Your task to perform on an android device: create a new album in the google photos Image 0: 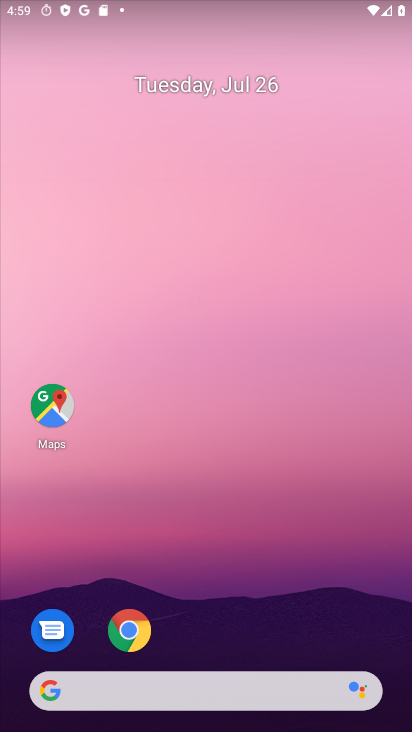
Step 0: drag from (324, 646) to (270, 84)
Your task to perform on an android device: create a new album in the google photos Image 1: 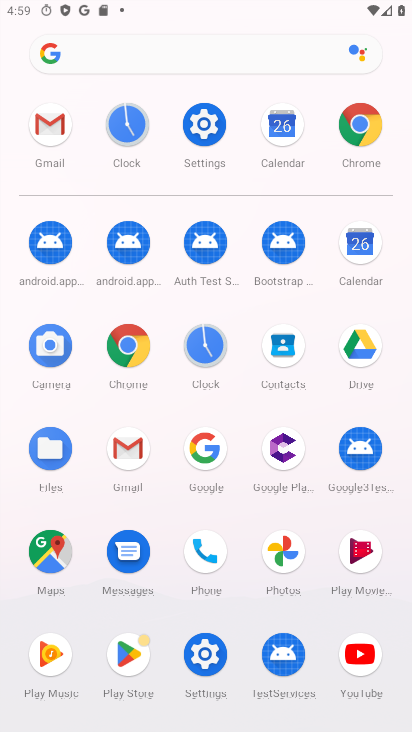
Step 1: click (285, 560)
Your task to perform on an android device: create a new album in the google photos Image 2: 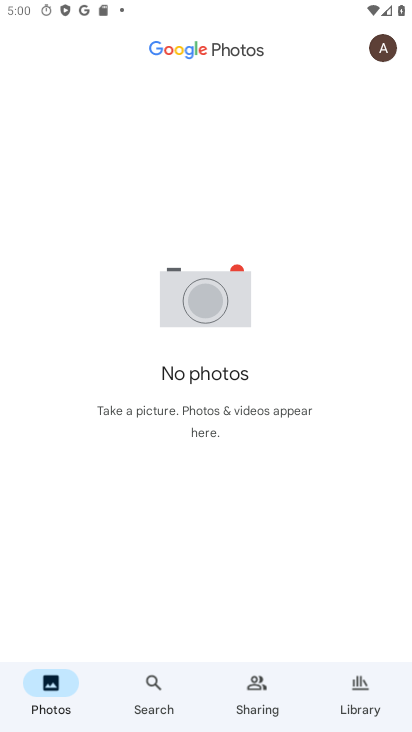
Step 2: click (359, 687)
Your task to perform on an android device: create a new album in the google photos Image 3: 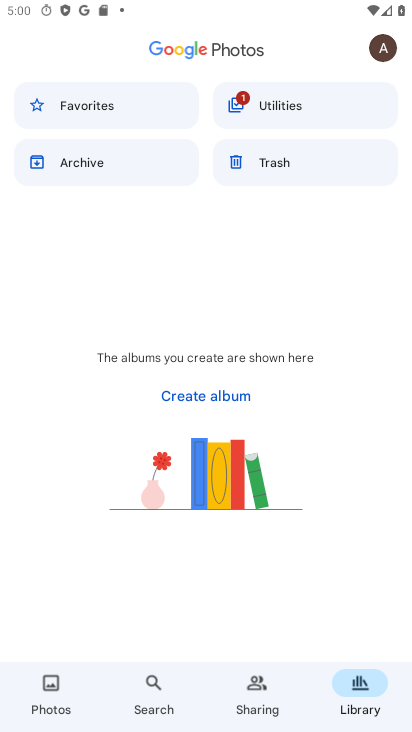
Step 3: click (224, 394)
Your task to perform on an android device: create a new album in the google photos Image 4: 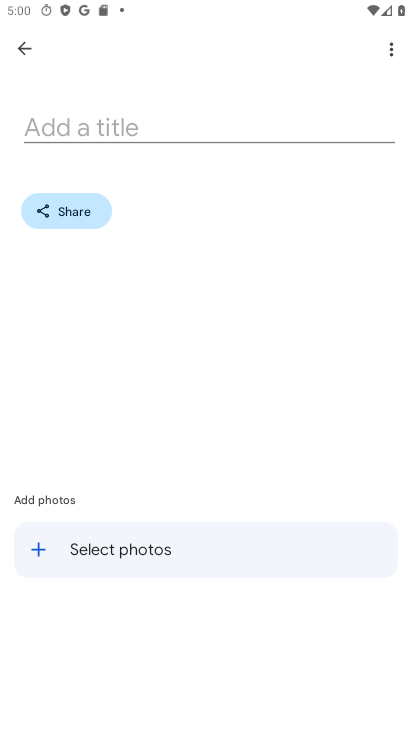
Step 4: click (246, 127)
Your task to perform on an android device: create a new album in the google photos Image 5: 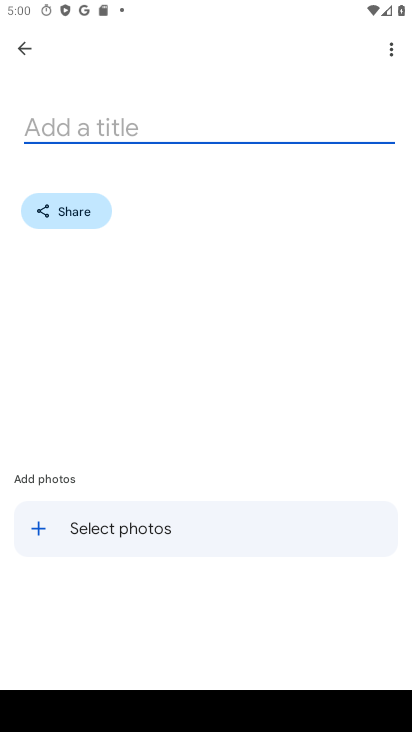
Step 5: type "hop no one"
Your task to perform on an android device: create a new album in the google photos Image 6: 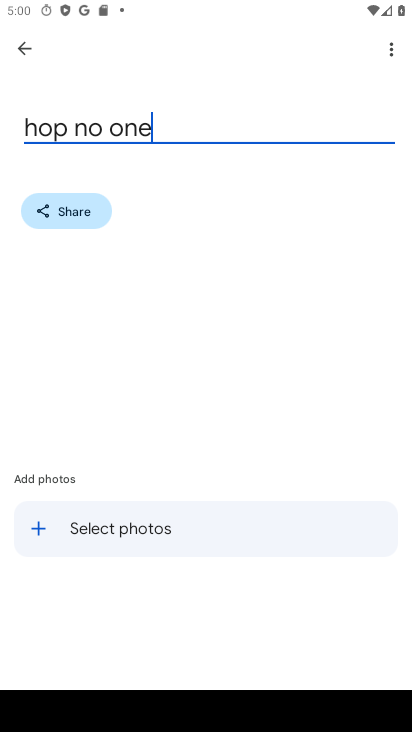
Step 6: click (21, 50)
Your task to perform on an android device: create a new album in the google photos Image 7: 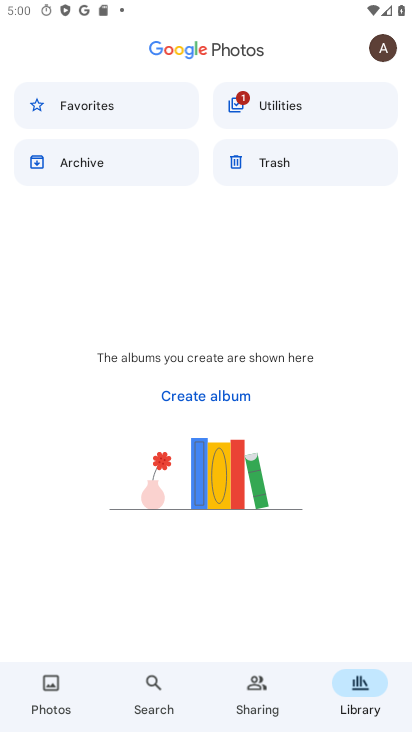
Step 7: task complete